Your task to perform on an android device: Go to CNN.com Image 0: 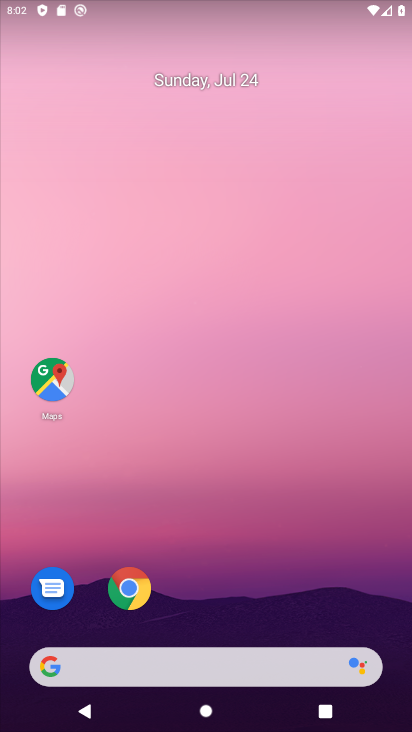
Step 0: click (137, 580)
Your task to perform on an android device: Go to CNN.com Image 1: 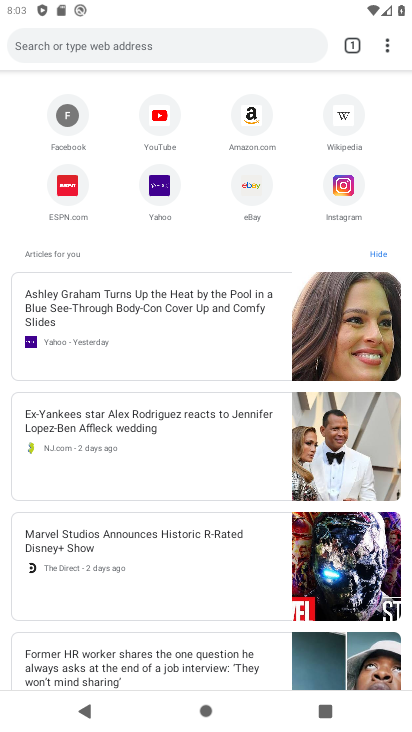
Step 1: click (148, 47)
Your task to perform on an android device: Go to CNN.com Image 2: 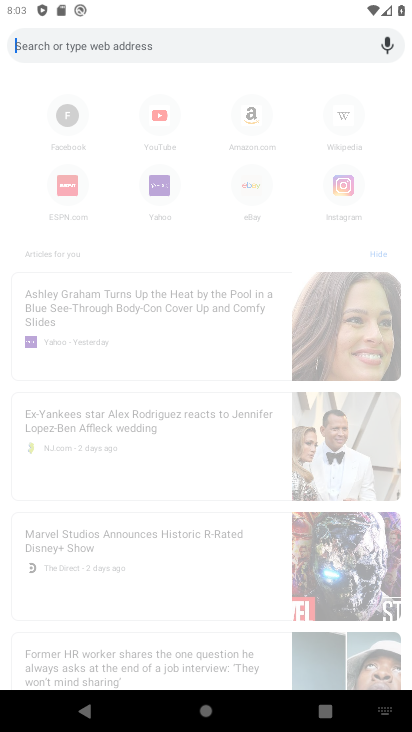
Step 2: type "CNN.com"
Your task to perform on an android device: Go to CNN.com Image 3: 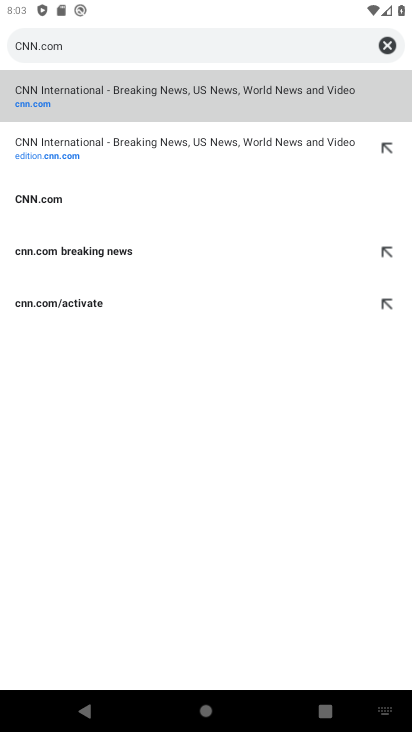
Step 3: click (267, 90)
Your task to perform on an android device: Go to CNN.com Image 4: 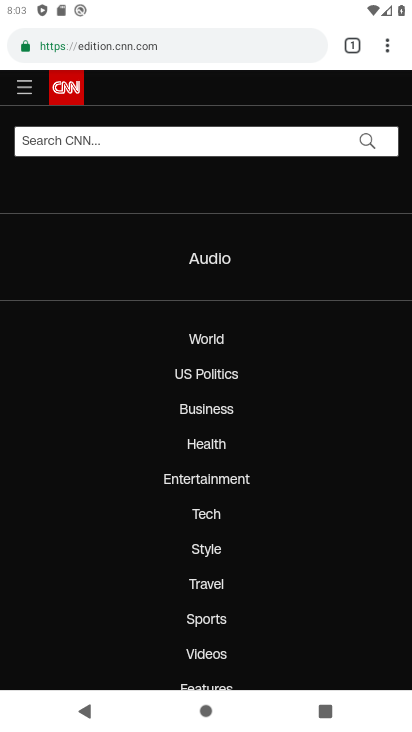
Step 4: task complete